Your task to perform on an android device: Go to Reddit.com Image 0: 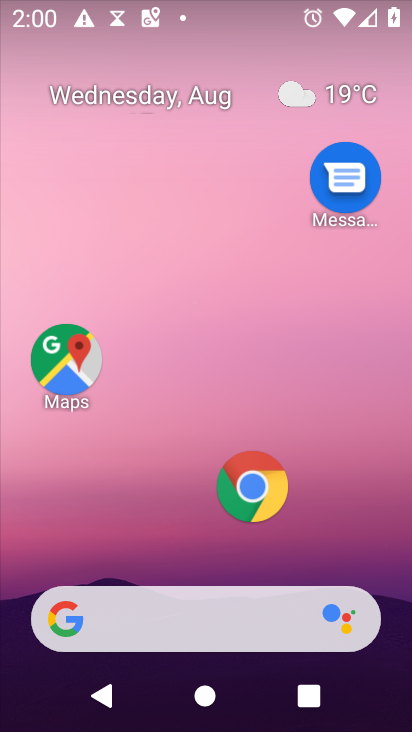
Step 0: click (260, 475)
Your task to perform on an android device: Go to Reddit.com Image 1: 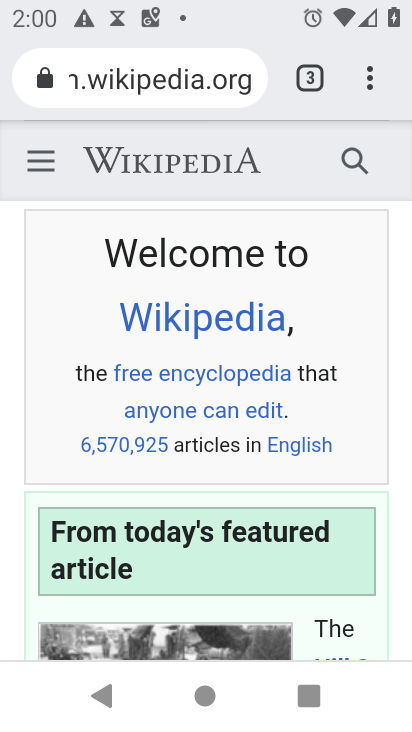
Step 1: click (316, 68)
Your task to perform on an android device: Go to Reddit.com Image 2: 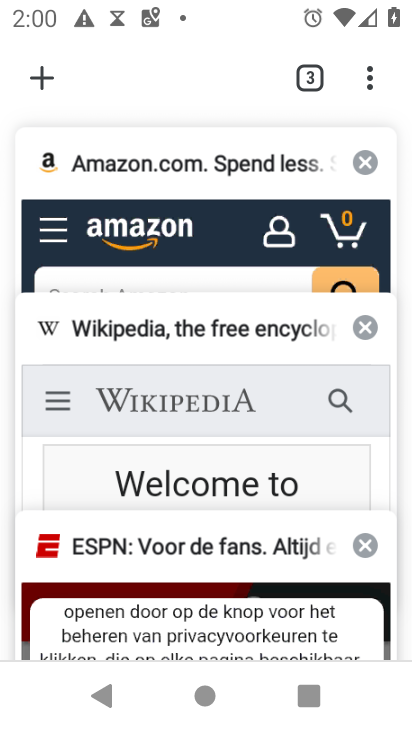
Step 2: click (44, 66)
Your task to perform on an android device: Go to Reddit.com Image 3: 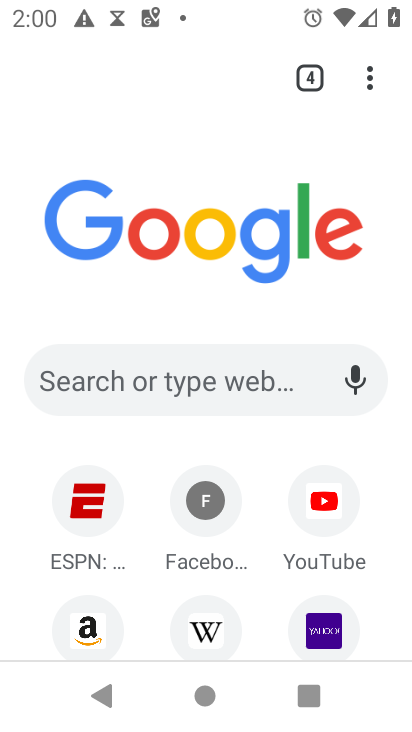
Step 3: click (153, 374)
Your task to perform on an android device: Go to Reddit.com Image 4: 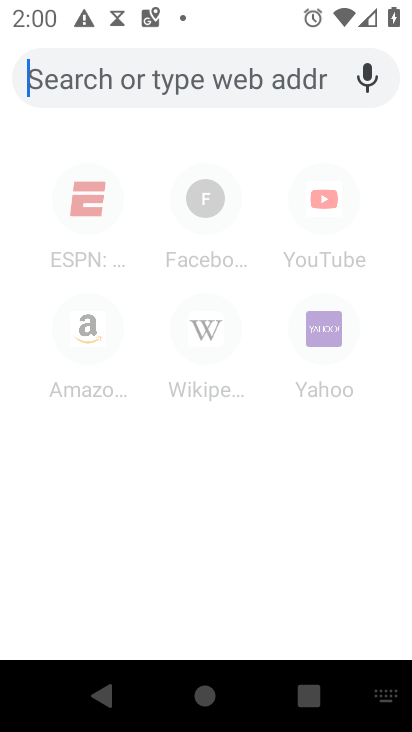
Step 4: type "reddit.com"
Your task to perform on an android device: Go to Reddit.com Image 5: 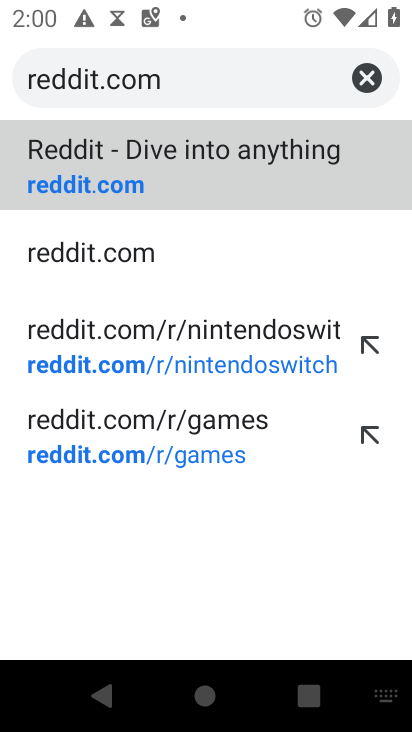
Step 5: click (154, 176)
Your task to perform on an android device: Go to Reddit.com Image 6: 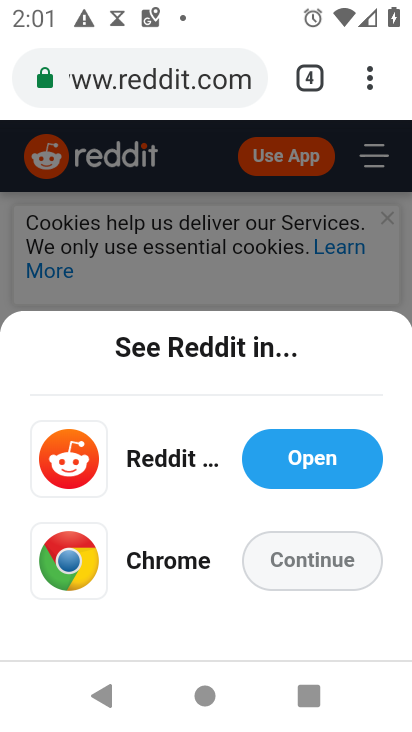
Step 6: click (166, 260)
Your task to perform on an android device: Go to Reddit.com Image 7: 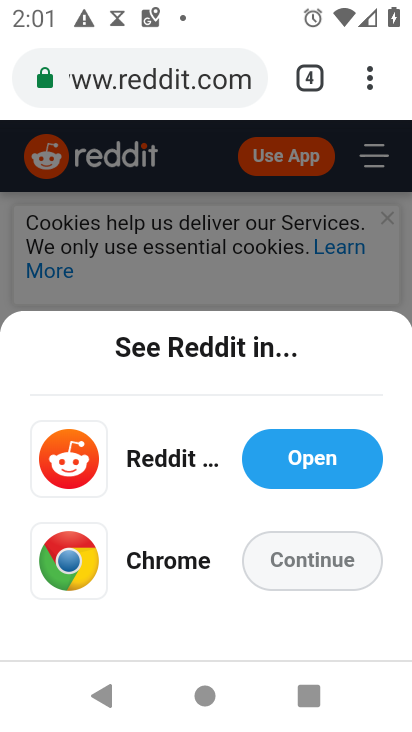
Step 7: task complete